Your task to perform on an android device: Open Youtube and go to the subscriptions tab Image 0: 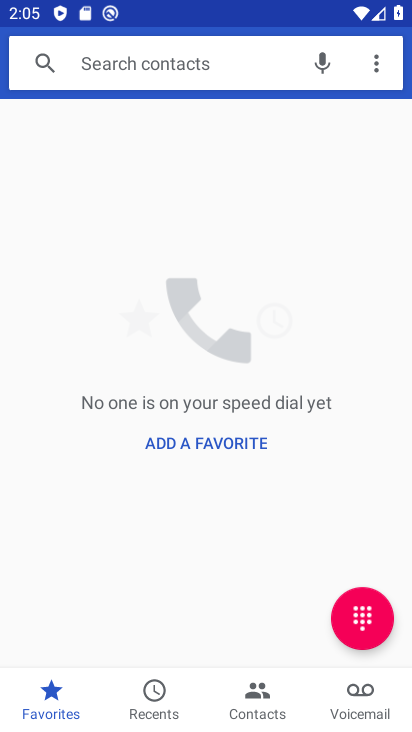
Step 0: press home button
Your task to perform on an android device: Open Youtube and go to the subscriptions tab Image 1: 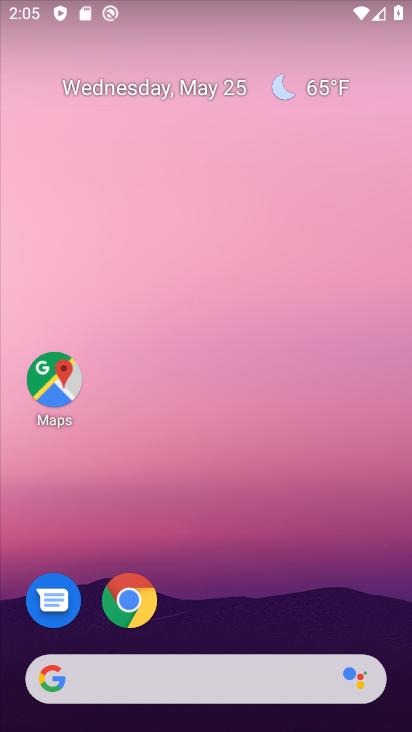
Step 1: drag from (269, 566) to (245, 126)
Your task to perform on an android device: Open Youtube and go to the subscriptions tab Image 2: 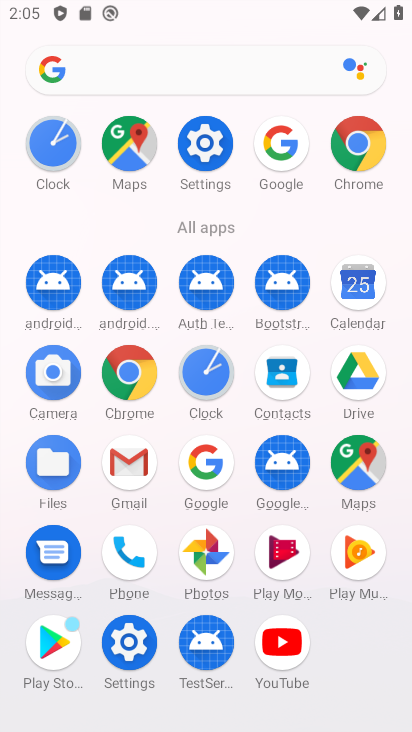
Step 2: click (269, 648)
Your task to perform on an android device: Open Youtube and go to the subscriptions tab Image 3: 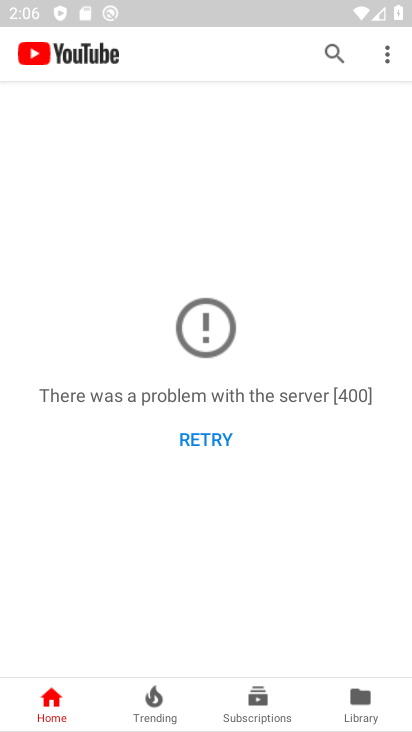
Step 3: click (258, 690)
Your task to perform on an android device: Open Youtube and go to the subscriptions tab Image 4: 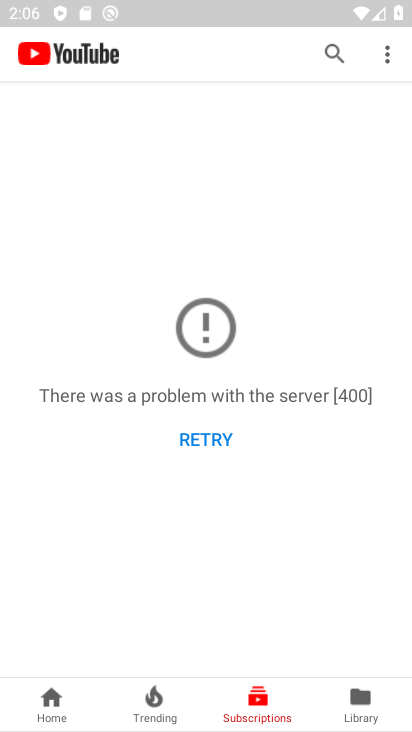
Step 4: task complete